Your task to perform on an android device: Go to ESPN.com Image 0: 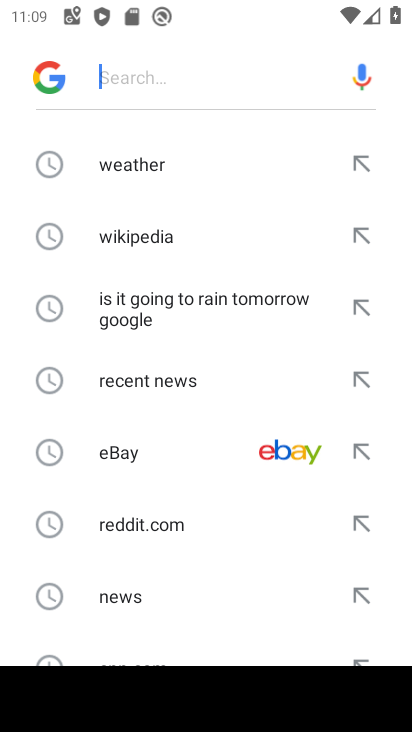
Step 0: press home button
Your task to perform on an android device: Go to ESPN.com Image 1: 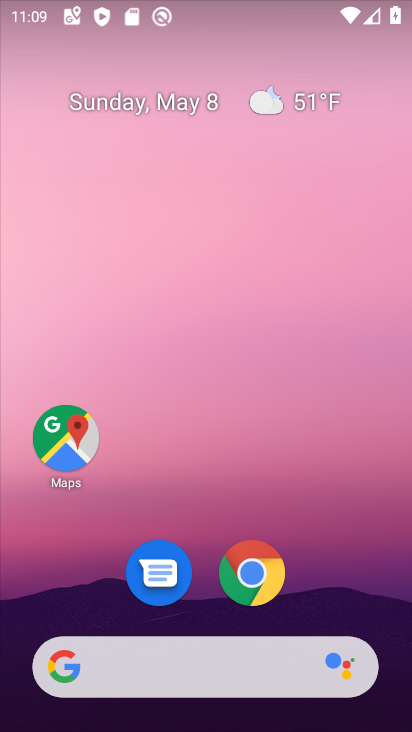
Step 1: click (259, 575)
Your task to perform on an android device: Go to ESPN.com Image 2: 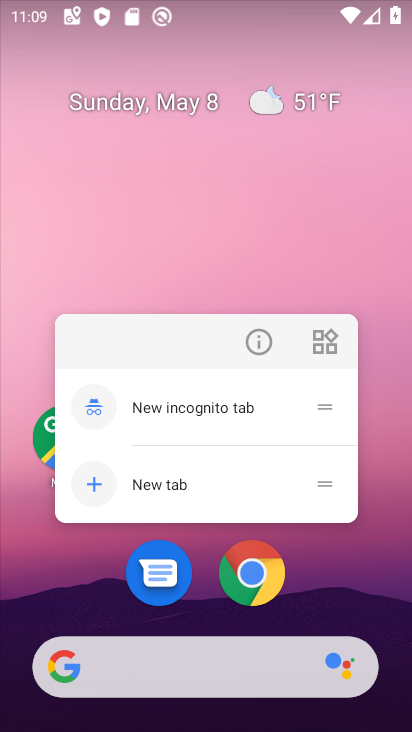
Step 2: click (258, 575)
Your task to perform on an android device: Go to ESPN.com Image 3: 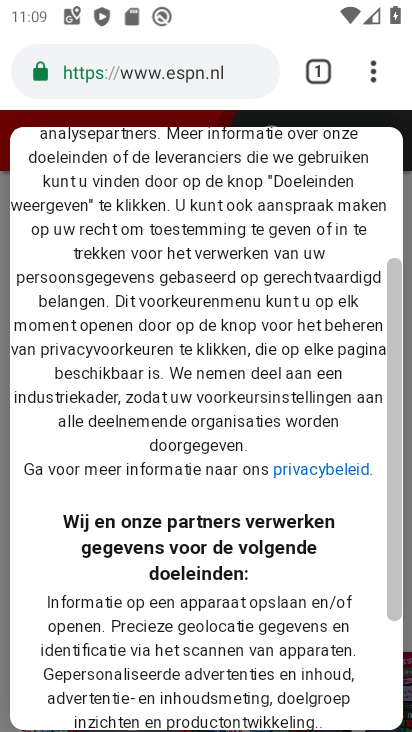
Step 3: click (373, 74)
Your task to perform on an android device: Go to ESPN.com Image 4: 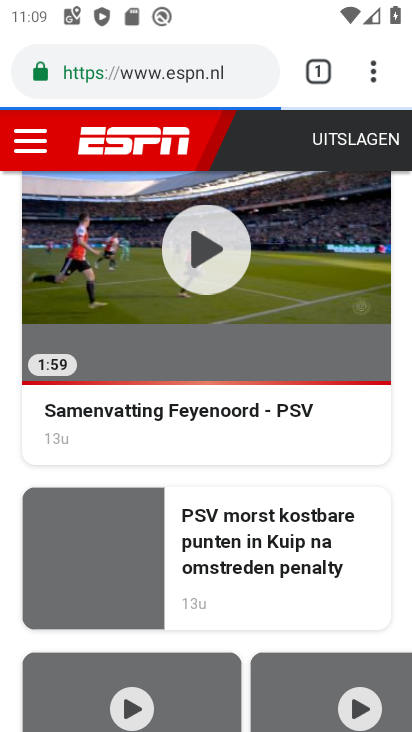
Step 4: click (324, 72)
Your task to perform on an android device: Go to ESPN.com Image 5: 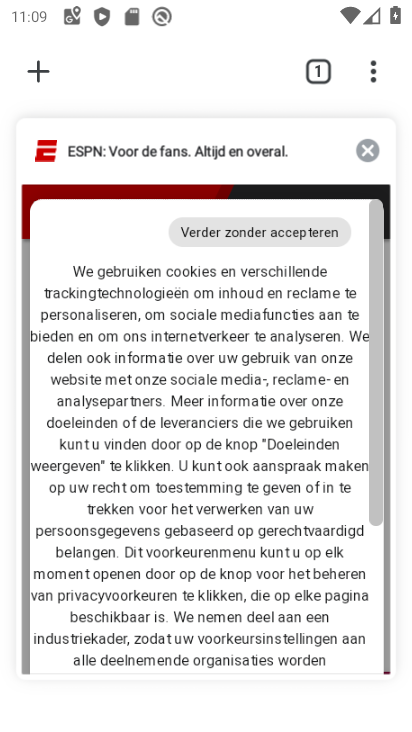
Step 5: click (362, 155)
Your task to perform on an android device: Go to ESPN.com Image 6: 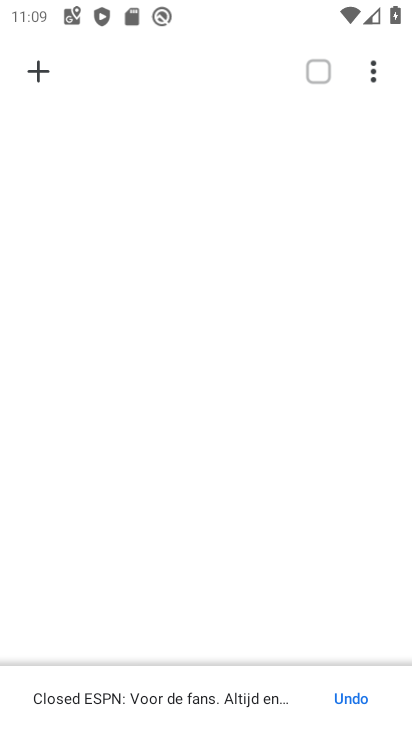
Step 6: click (47, 71)
Your task to perform on an android device: Go to ESPN.com Image 7: 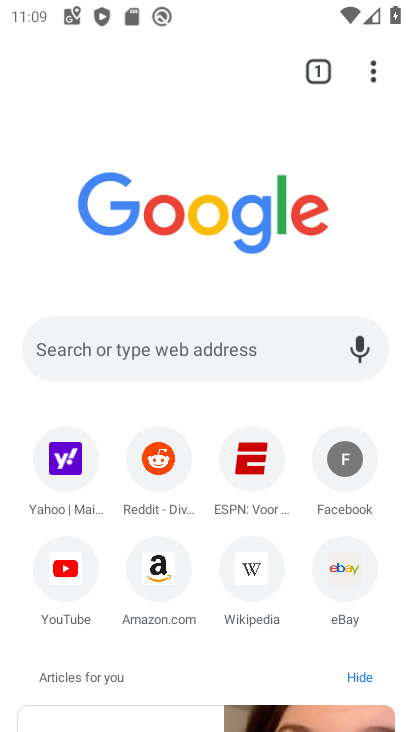
Step 7: click (259, 473)
Your task to perform on an android device: Go to ESPN.com Image 8: 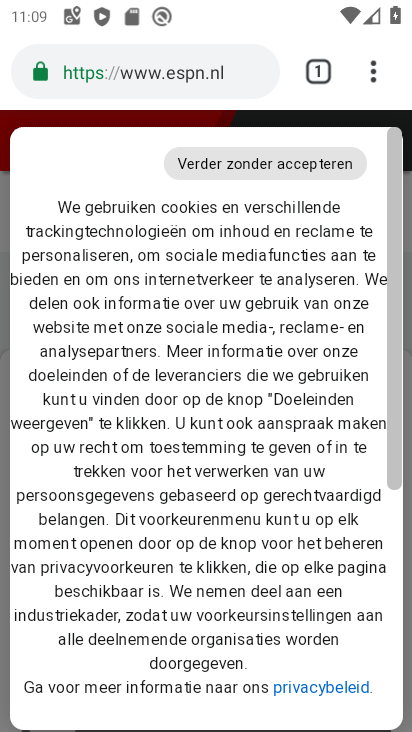
Step 8: task complete